Your task to perform on an android device: clear history in the chrome app Image 0: 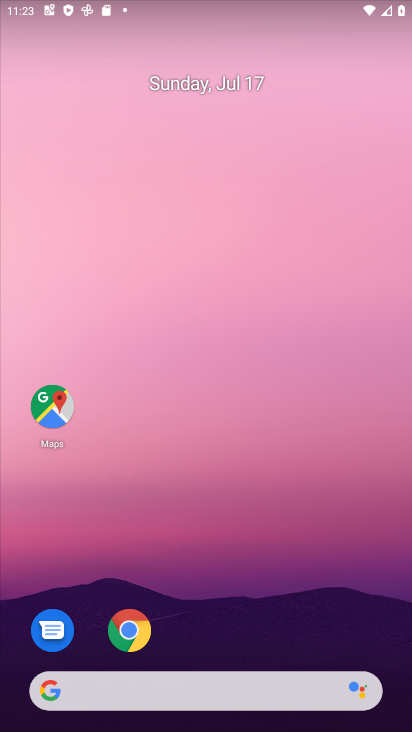
Step 0: click (148, 633)
Your task to perform on an android device: clear history in the chrome app Image 1: 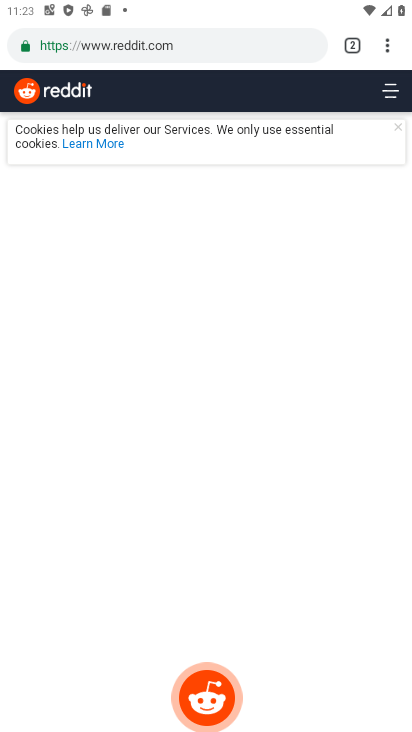
Step 1: click (393, 52)
Your task to perform on an android device: clear history in the chrome app Image 2: 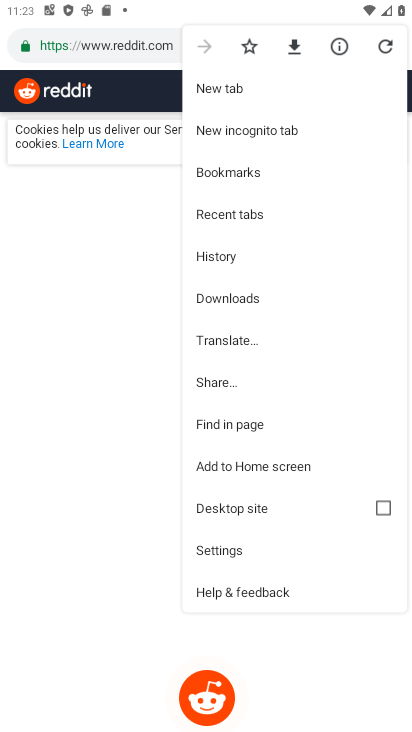
Step 2: click (253, 542)
Your task to perform on an android device: clear history in the chrome app Image 3: 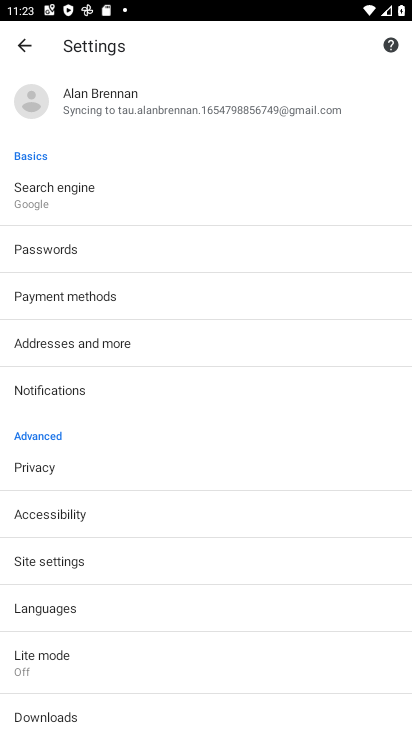
Step 3: drag from (198, 657) to (207, 307)
Your task to perform on an android device: clear history in the chrome app Image 4: 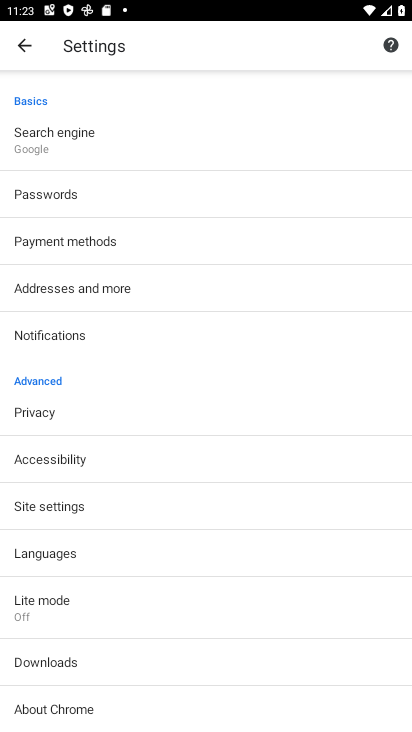
Step 4: click (164, 494)
Your task to perform on an android device: clear history in the chrome app Image 5: 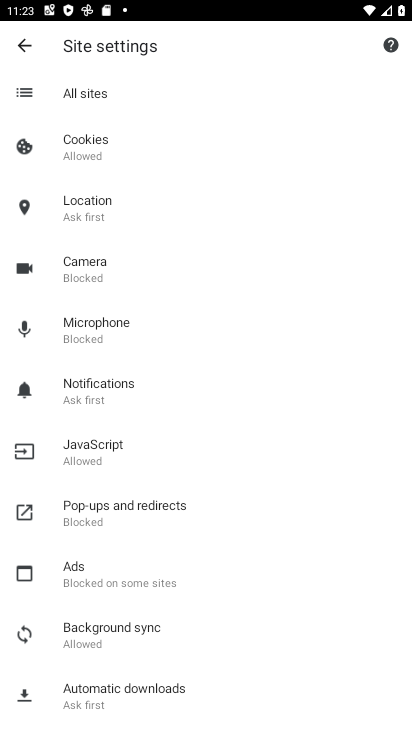
Step 5: drag from (162, 667) to (158, 367)
Your task to perform on an android device: clear history in the chrome app Image 6: 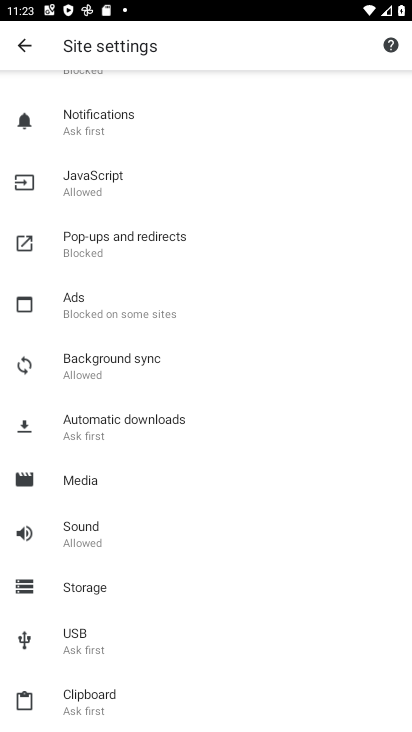
Step 6: click (27, 53)
Your task to perform on an android device: clear history in the chrome app Image 7: 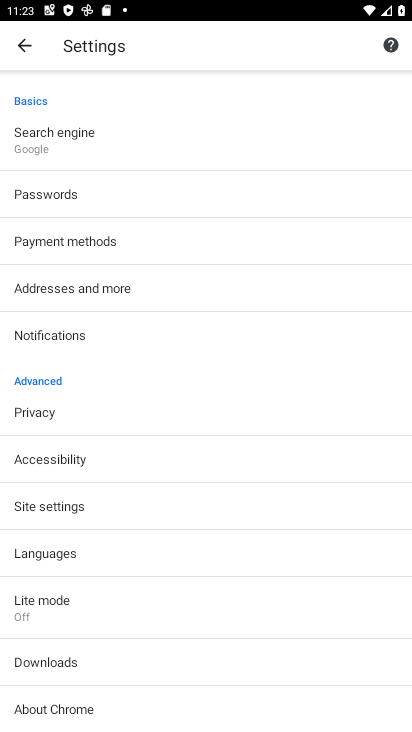
Step 7: click (35, 52)
Your task to perform on an android device: clear history in the chrome app Image 8: 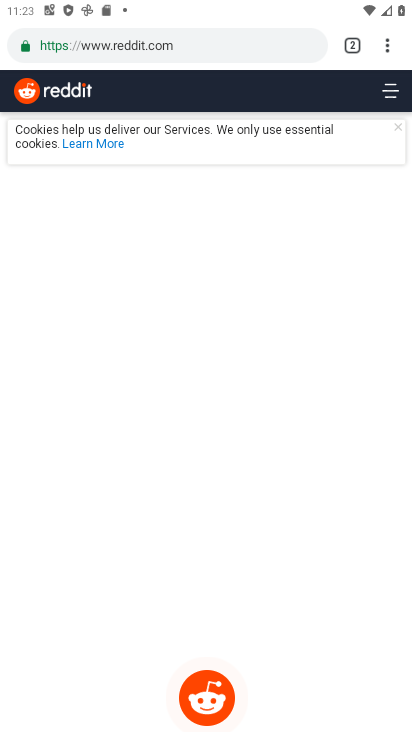
Step 8: click (393, 39)
Your task to perform on an android device: clear history in the chrome app Image 9: 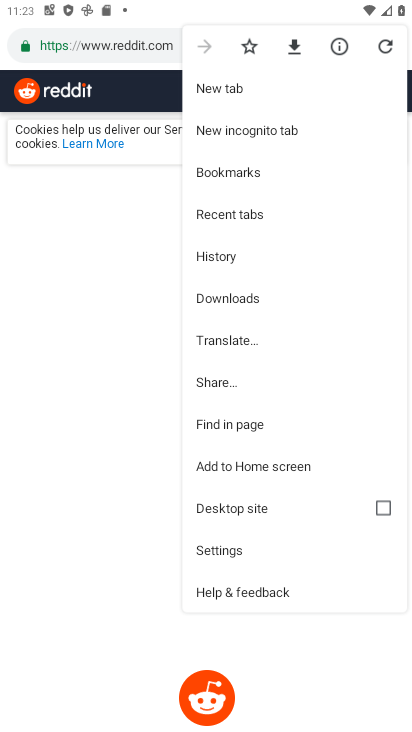
Step 9: click (270, 253)
Your task to perform on an android device: clear history in the chrome app Image 10: 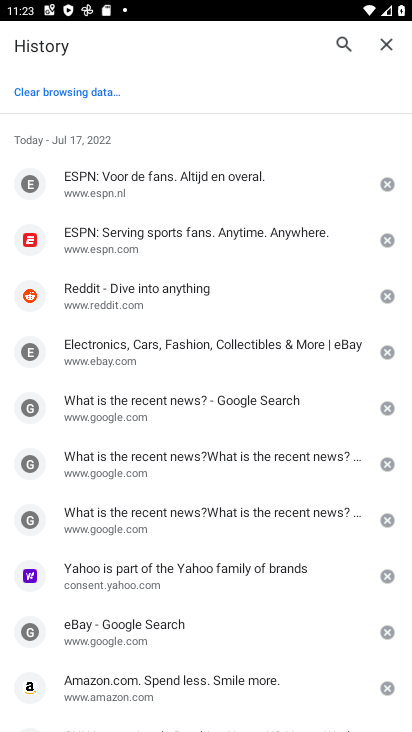
Step 10: click (97, 95)
Your task to perform on an android device: clear history in the chrome app Image 11: 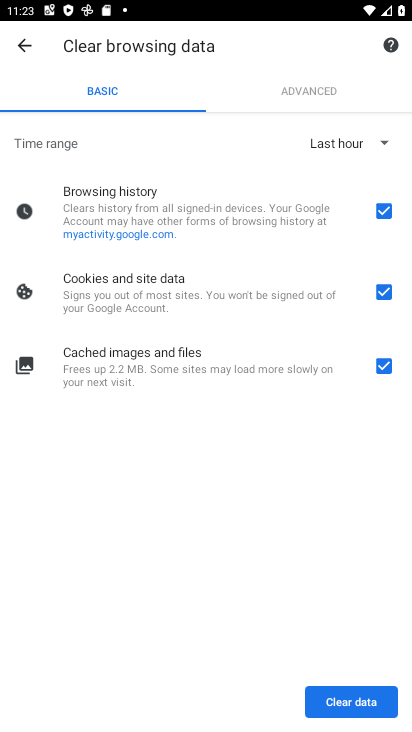
Step 11: click (354, 705)
Your task to perform on an android device: clear history in the chrome app Image 12: 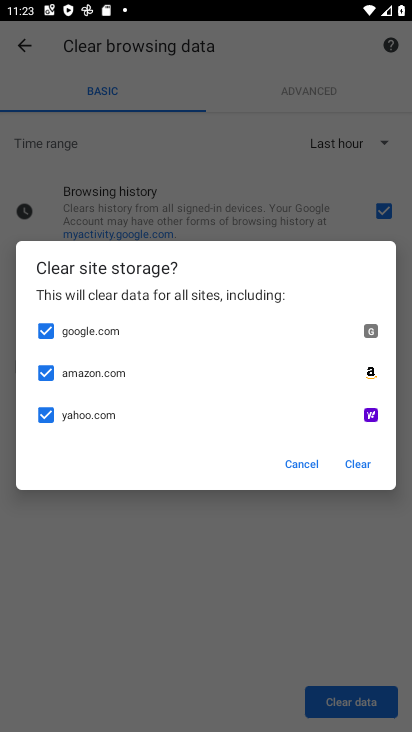
Step 12: task complete